Your task to perform on an android device: install app "LiveIn - Share Your Moment" Image 0: 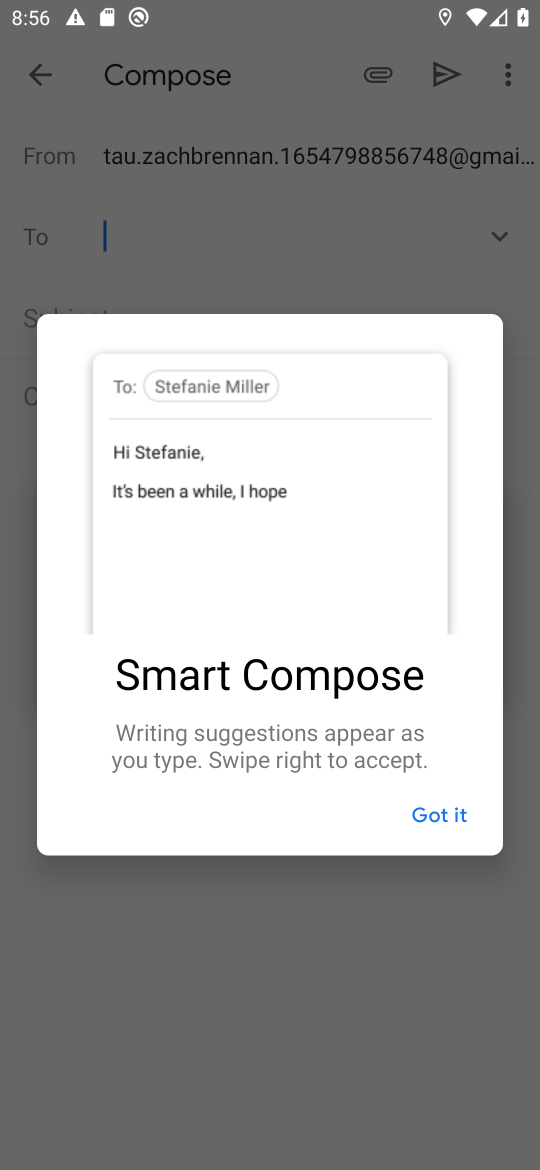
Step 0: press home button
Your task to perform on an android device: install app "LiveIn - Share Your Moment" Image 1: 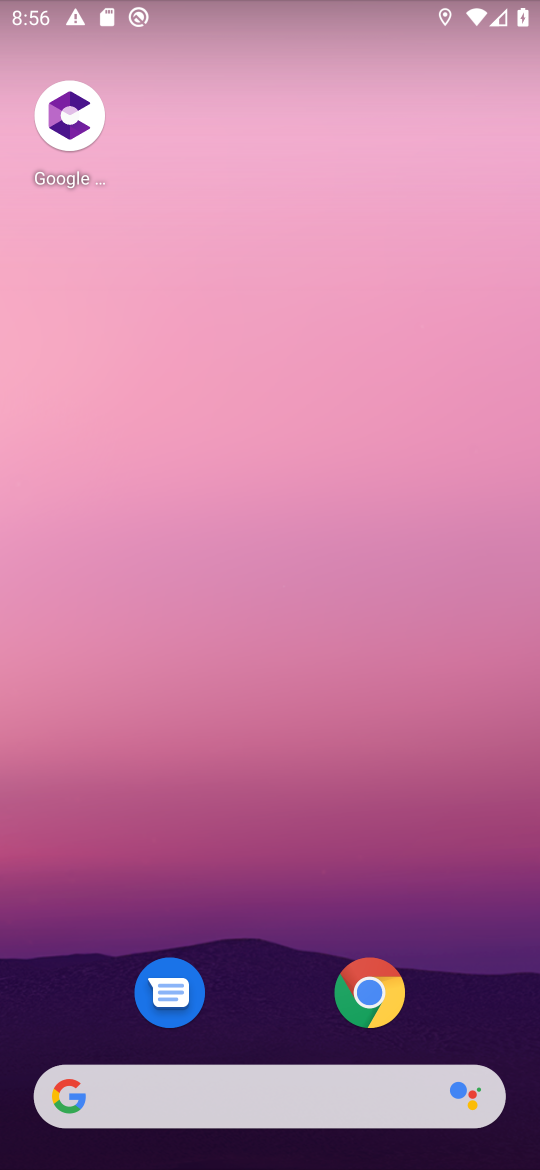
Step 1: drag from (230, 1115) to (230, 416)
Your task to perform on an android device: install app "LiveIn - Share Your Moment" Image 2: 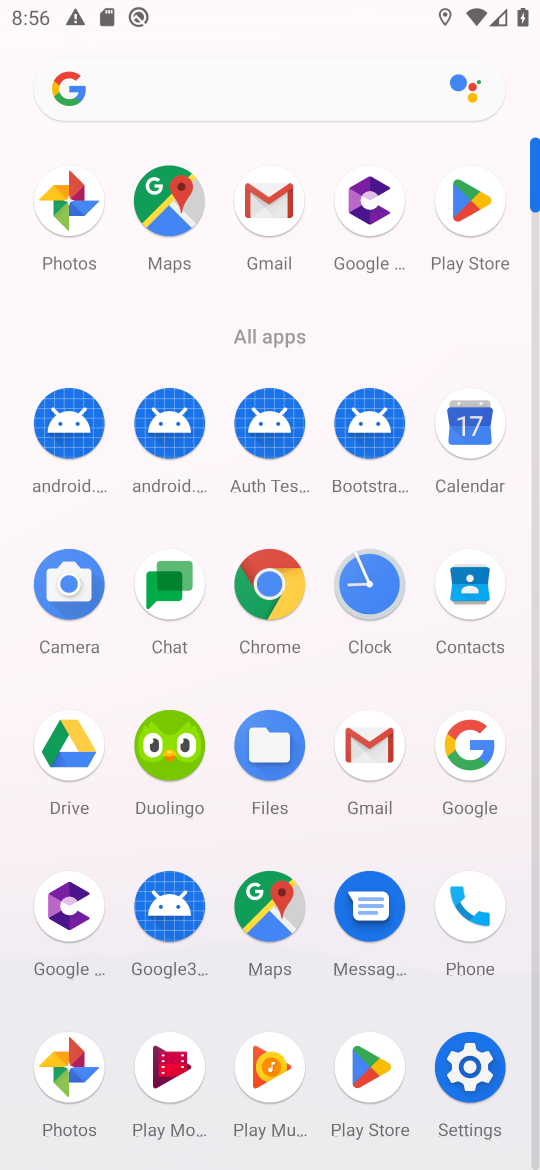
Step 2: click (478, 204)
Your task to perform on an android device: install app "LiveIn - Share Your Moment" Image 3: 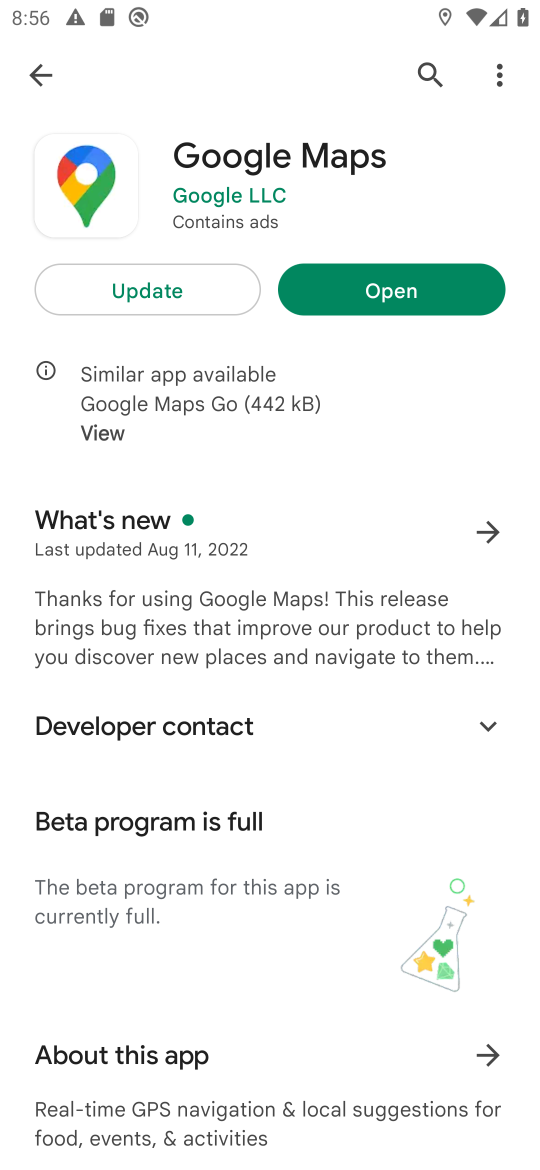
Step 3: press back button
Your task to perform on an android device: install app "LiveIn - Share Your Moment" Image 4: 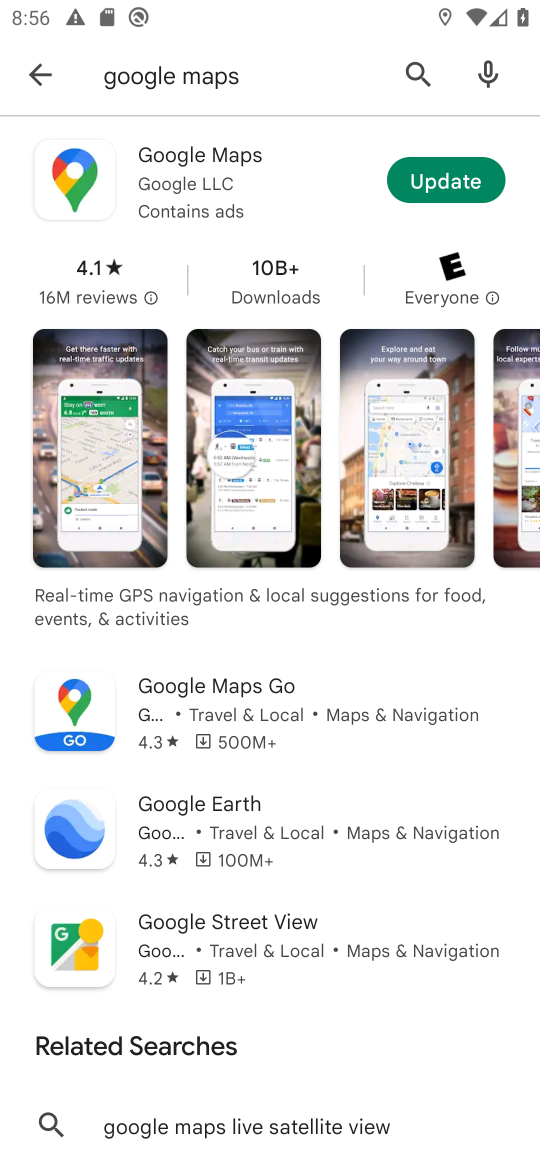
Step 4: press back button
Your task to perform on an android device: install app "LiveIn - Share Your Moment" Image 5: 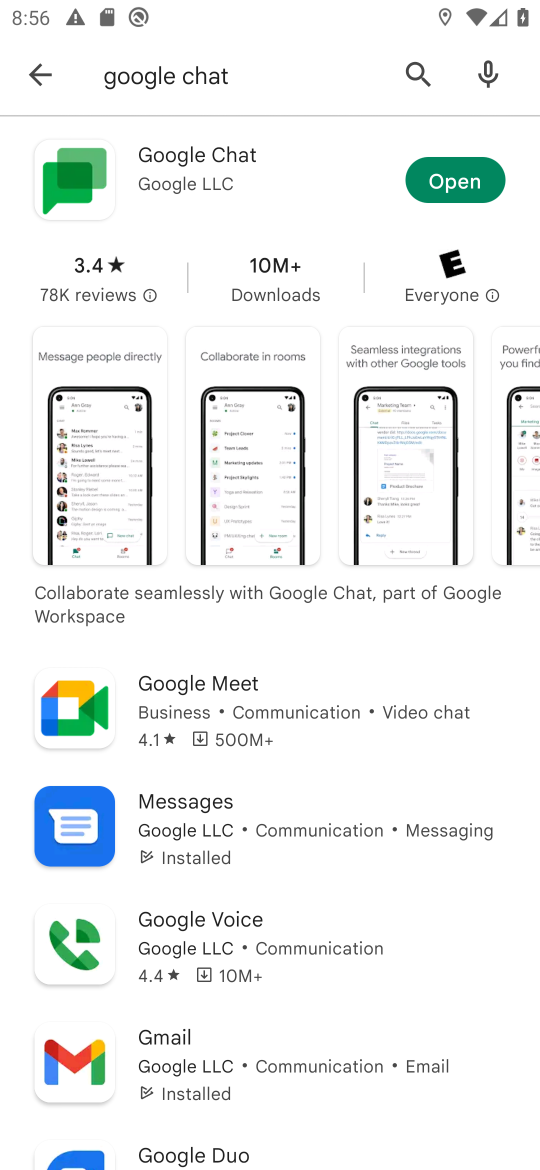
Step 5: press back button
Your task to perform on an android device: install app "LiveIn - Share Your Moment" Image 6: 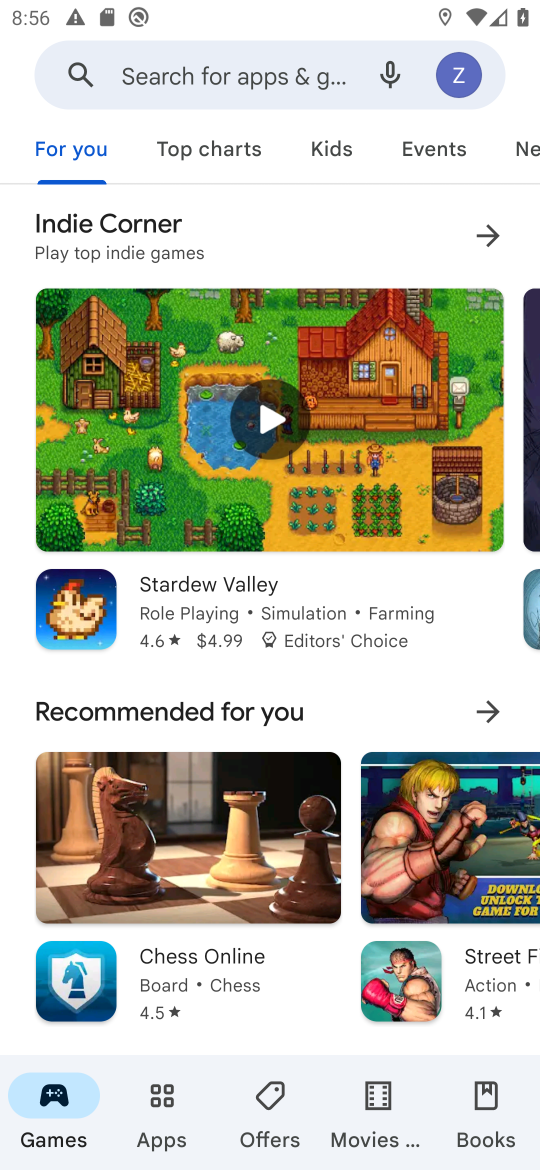
Step 6: click (164, 75)
Your task to perform on an android device: install app "LiveIn - Share Your Moment" Image 7: 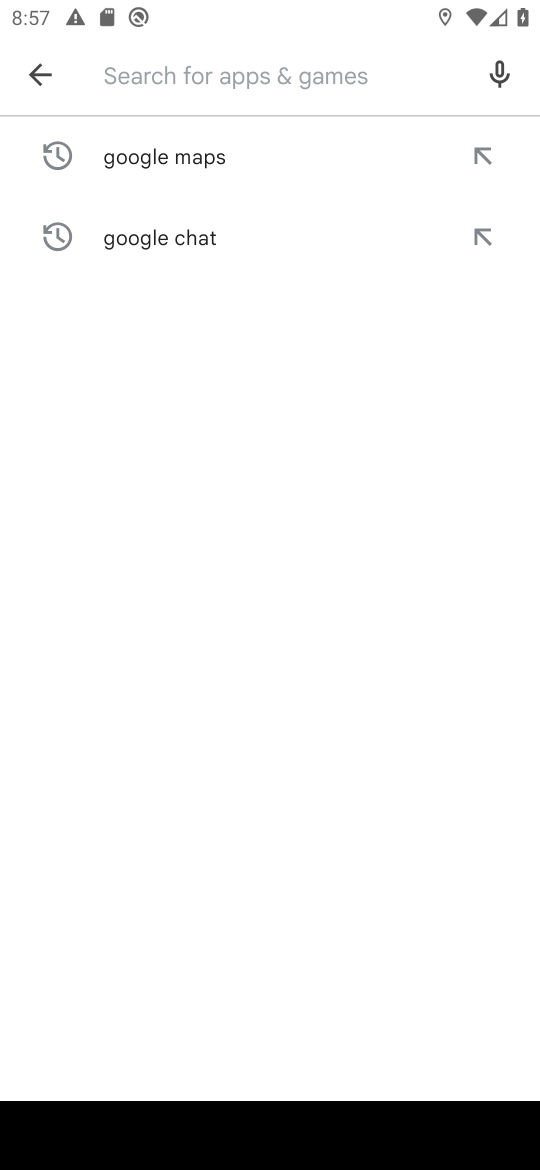
Step 7: type "LiveIn - Share Your Moment"
Your task to perform on an android device: install app "LiveIn - Share Your Moment" Image 8: 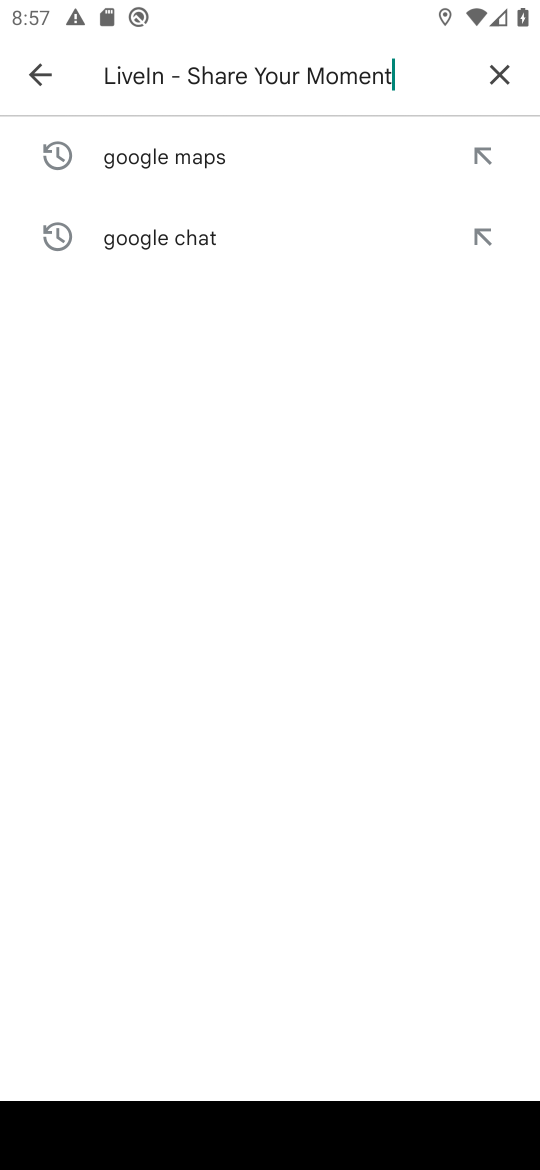
Step 8: type ""
Your task to perform on an android device: install app "LiveIn - Share Your Moment" Image 9: 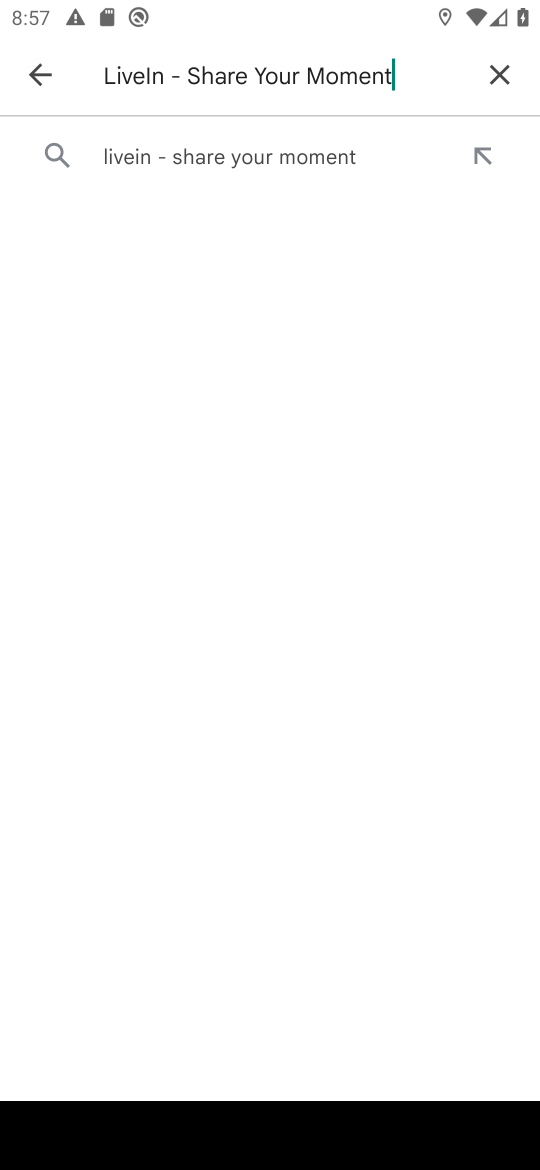
Step 9: click (253, 157)
Your task to perform on an android device: install app "LiveIn - Share Your Moment" Image 10: 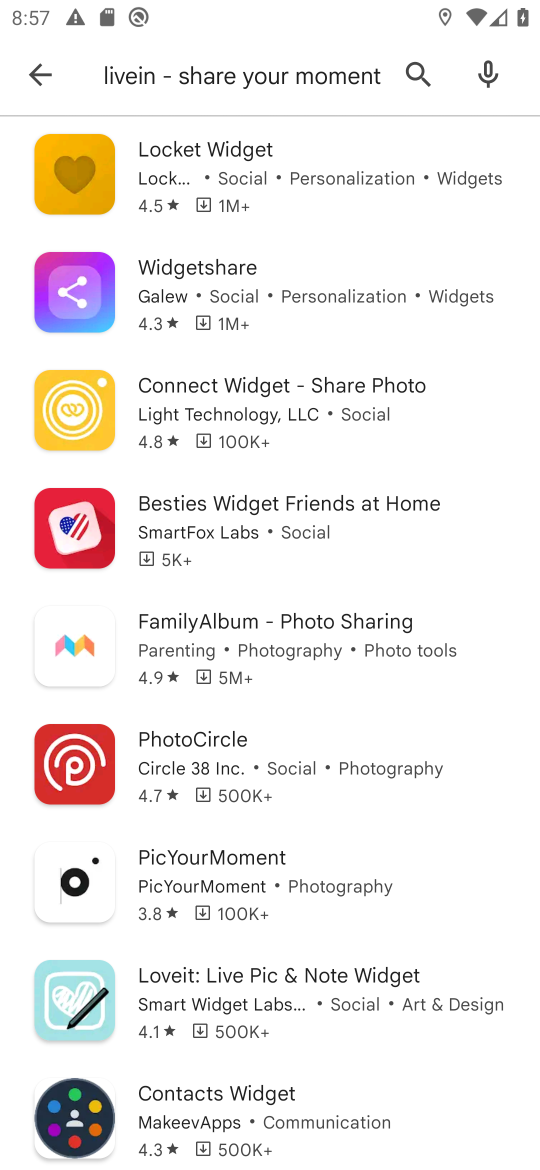
Step 10: task complete